Your task to perform on an android device: turn off data saver in the chrome app Image 0: 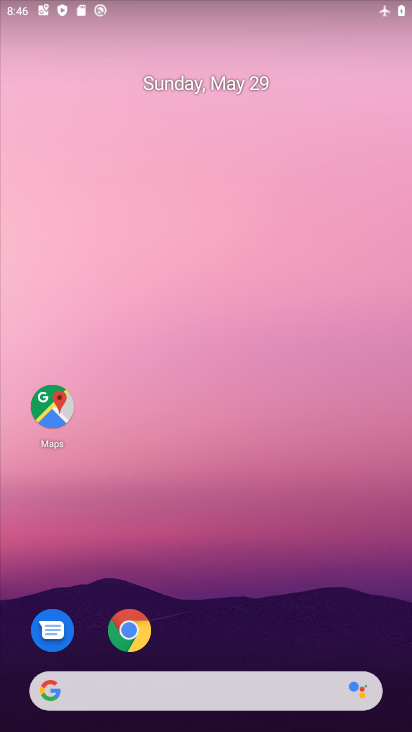
Step 0: click (120, 634)
Your task to perform on an android device: turn off data saver in the chrome app Image 1: 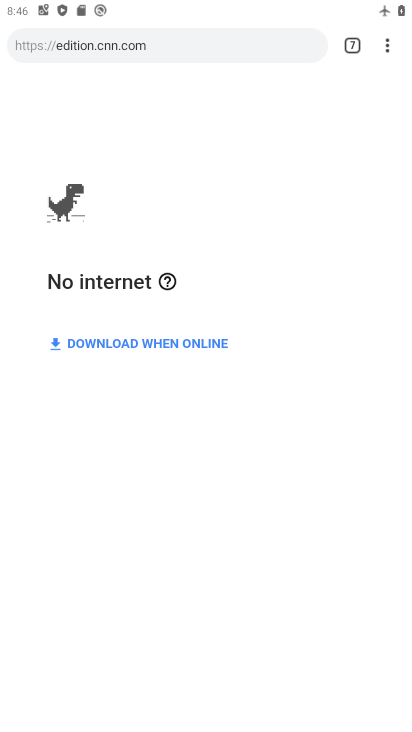
Step 1: click (386, 51)
Your task to perform on an android device: turn off data saver in the chrome app Image 2: 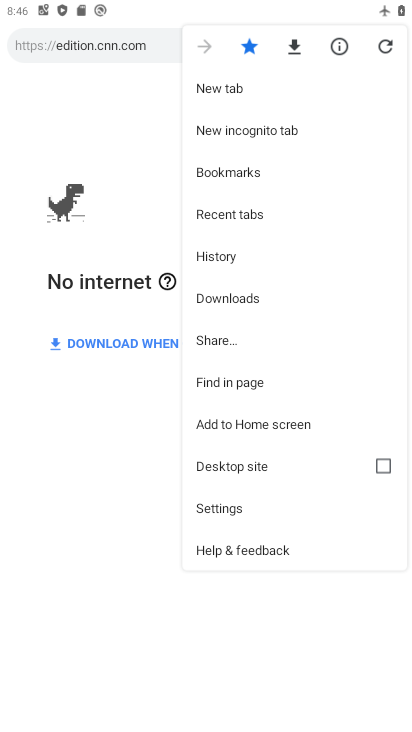
Step 2: click (231, 513)
Your task to perform on an android device: turn off data saver in the chrome app Image 3: 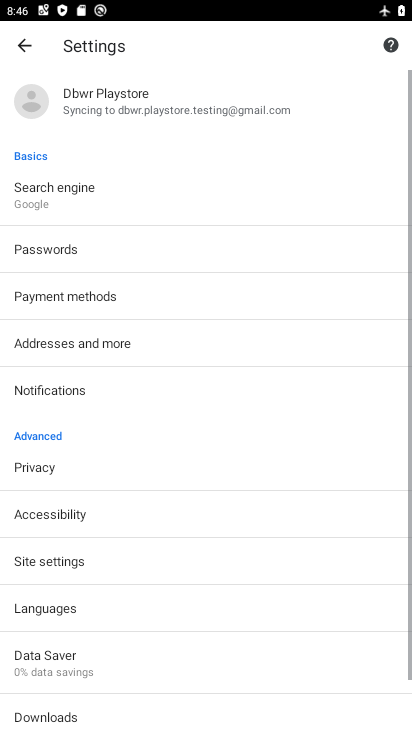
Step 3: click (99, 672)
Your task to perform on an android device: turn off data saver in the chrome app Image 4: 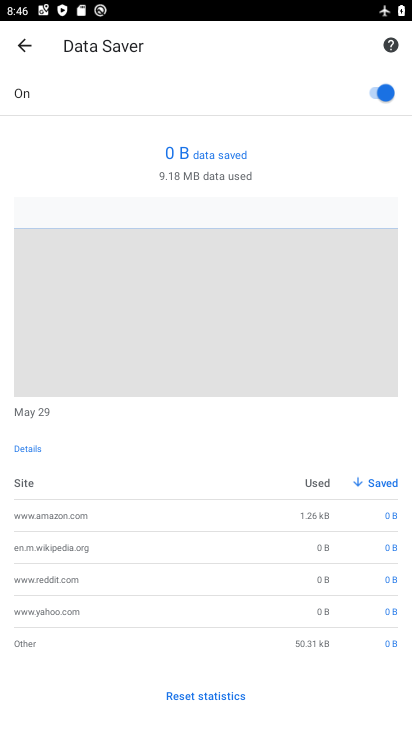
Step 4: click (390, 82)
Your task to perform on an android device: turn off data saver in the chrome app Image 5: 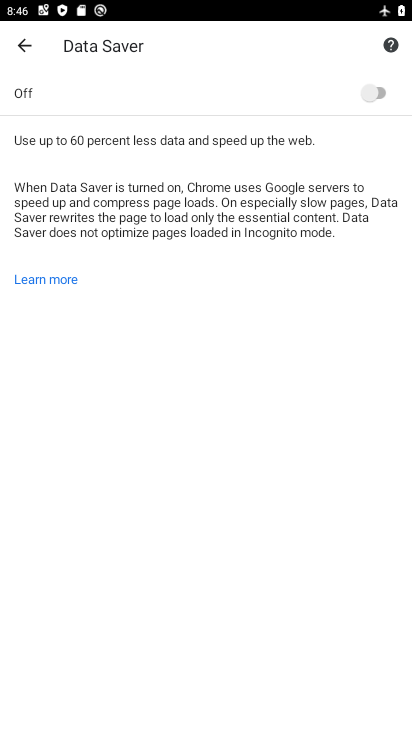
Step 5: task complete